Your task to perform on an android device: Check the weather Image 0: 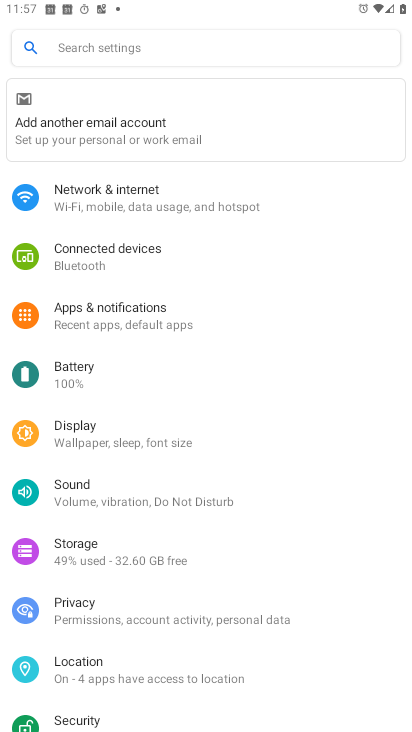
Step 0: press home button
Your task to perform on an android device: Check the weather Image 1: 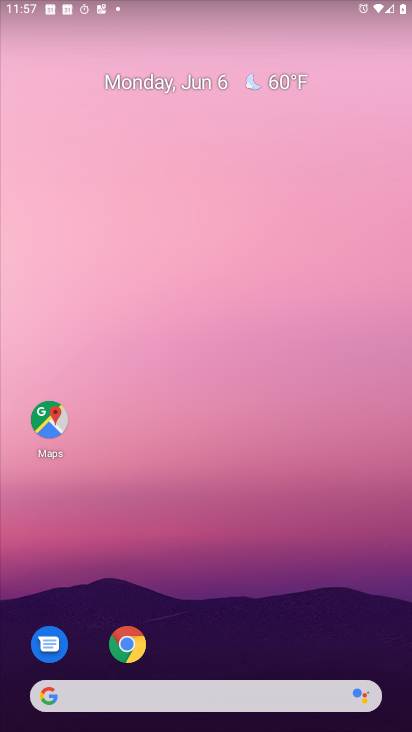
Step 1: click (170, 701)
Your task to perform on an android device: Check the weather Image 2: 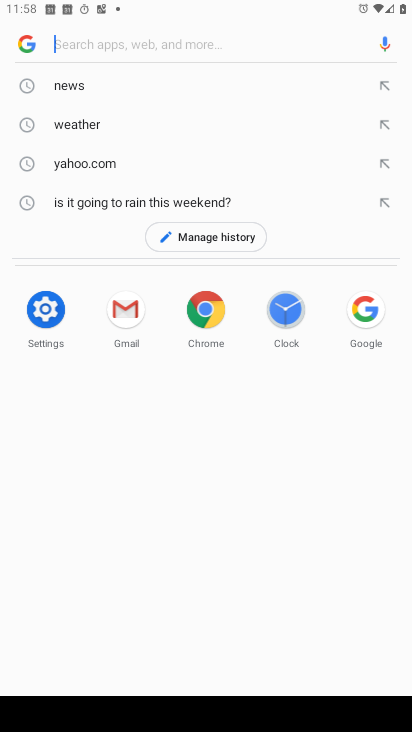
Step 2: click (101, 127)
Your task to perform on an android device: Check the weather Image 3: 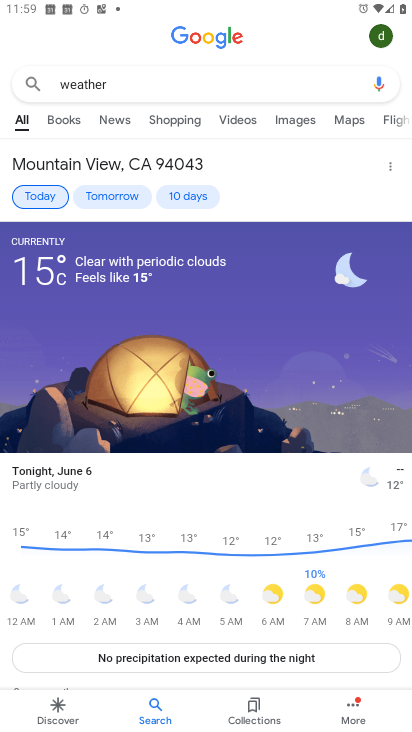
Step 3: task complete